Your task to perform on an android device: check the backup settings in the google photos Image 0: 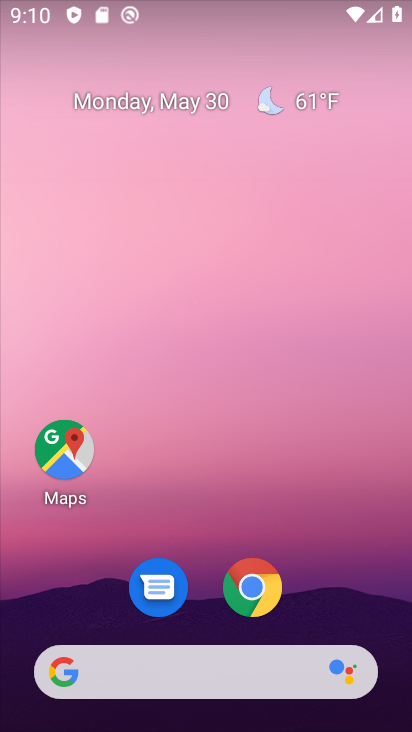
Step 0: drag from (209, 615) to (150, 13)
Your task to perform on an android device: check the backup settings in the google photos Image 1: 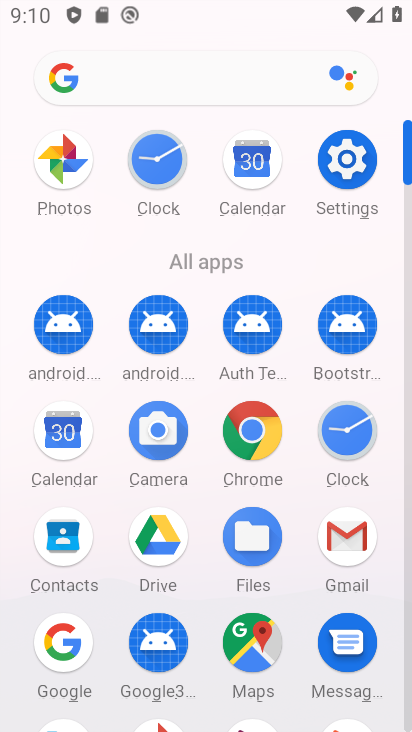
Step 1: drag from (202, 607) to (206, 44)
Your task to perform on an android device: check the backup settings in the google photos Image 2: 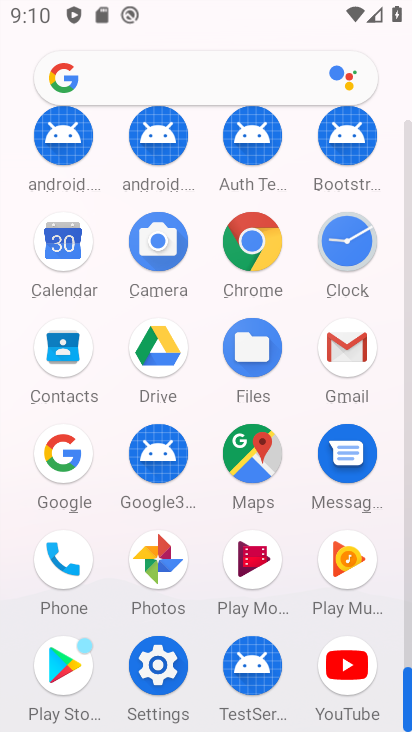
Step 2: click (159, 547)
Your task to perform on an android device: check the backup settings in the google photos Image 3: 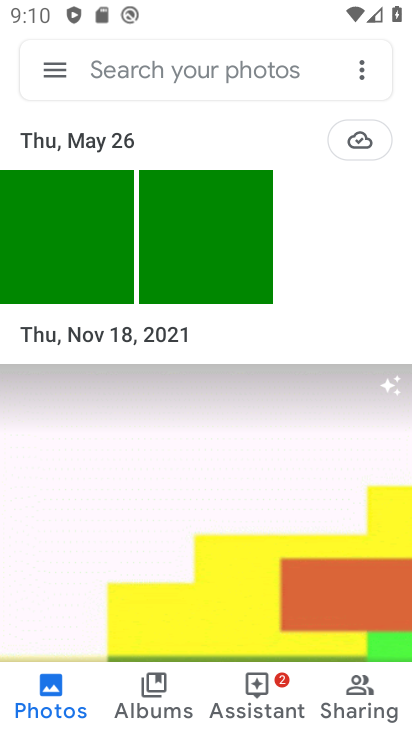
Step 3: click (58, 67)
Your task to perform on an android device: check the backup settings in the google photos Image 4: 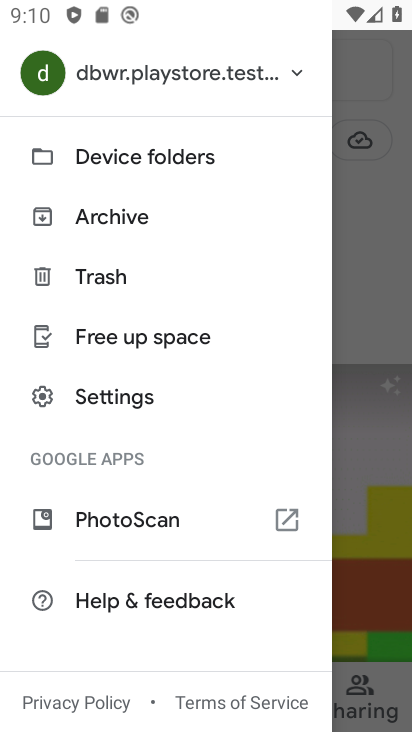
Step 4: click (76, 389)
Your task to perform on an android device: check the backup settings in the google photos Image 5: 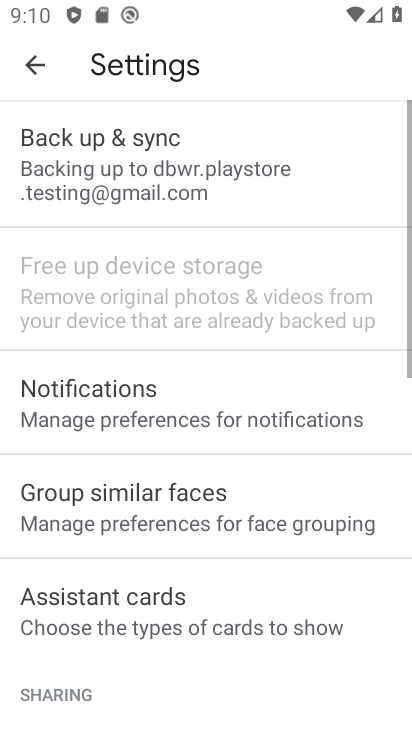
Step 5: click (98, 197)
Your task to perform on an android device: check the backup settings in the google photos Image 6: 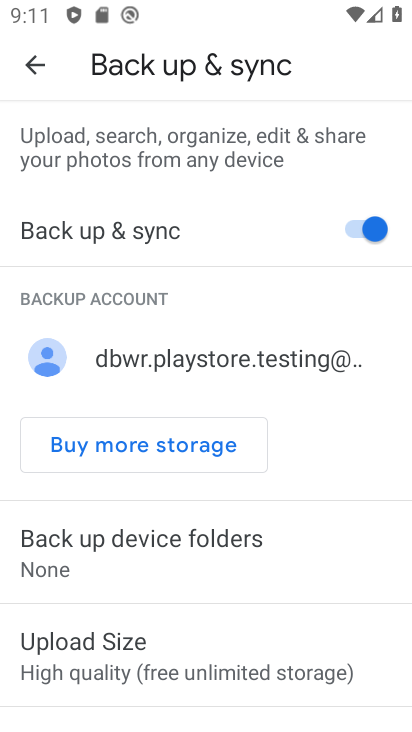
Step 6: task complete